Your task to perform on an android device: turn off picture-in-picture Image 0: 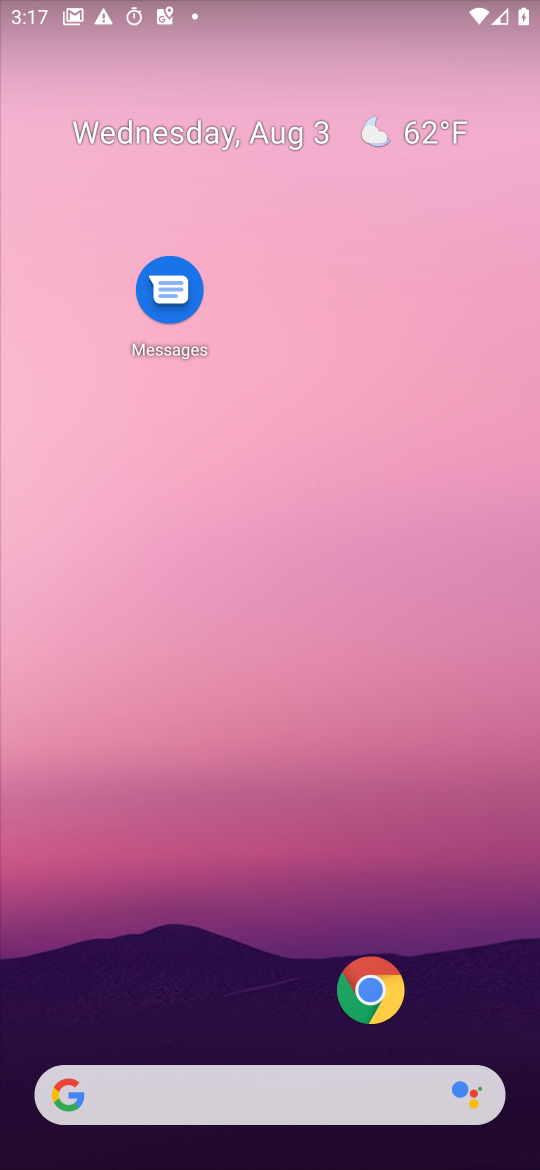
Step 0: click (385, 975)
Your task to perform on an android device: turn off picture-in-picture Image 1: 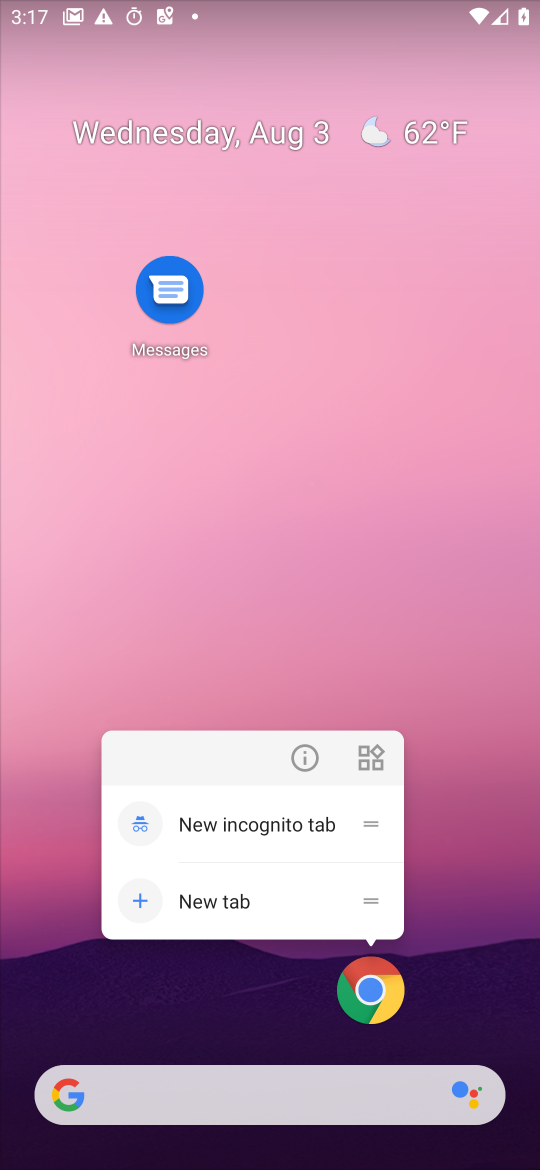
Step 1: click (310, 758)
Your task to perform on an android device: turn off picture-in-picture Image 2: 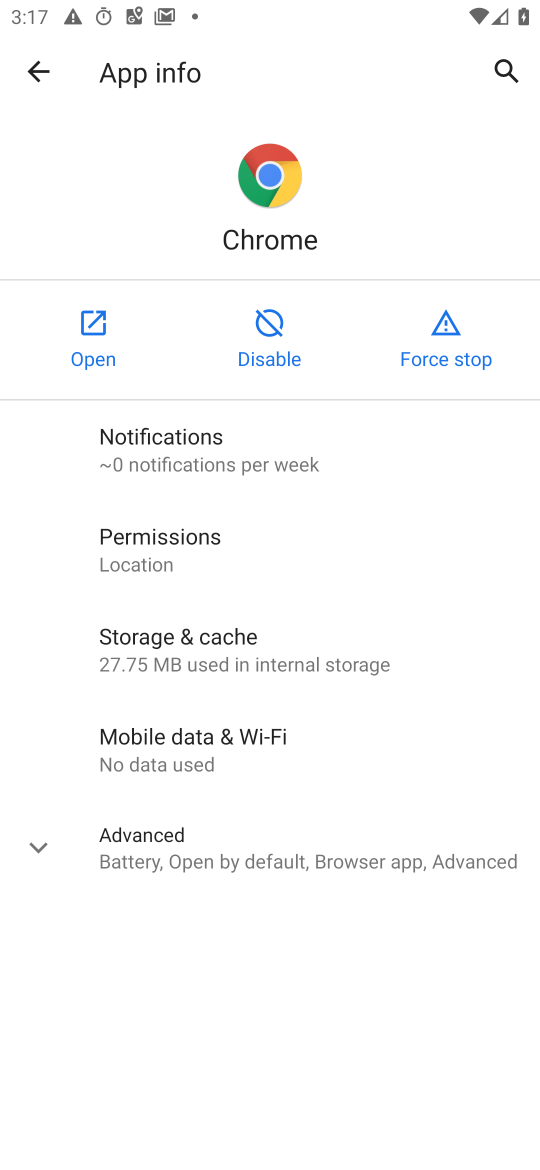
Step 2: click (167, 858)
Your task to perform on an android device: turn off picture-in-picture Image 3: 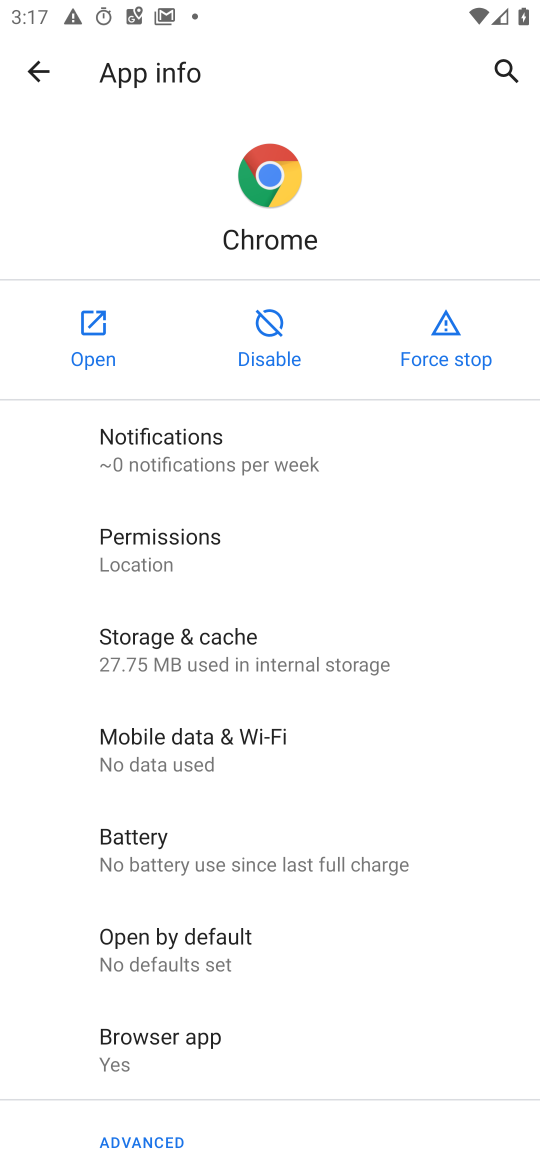
Step 3: drag from (179, 1084) to (213, 448)
Your task to perform on an android device: turn off picture-in-picture Image 4: 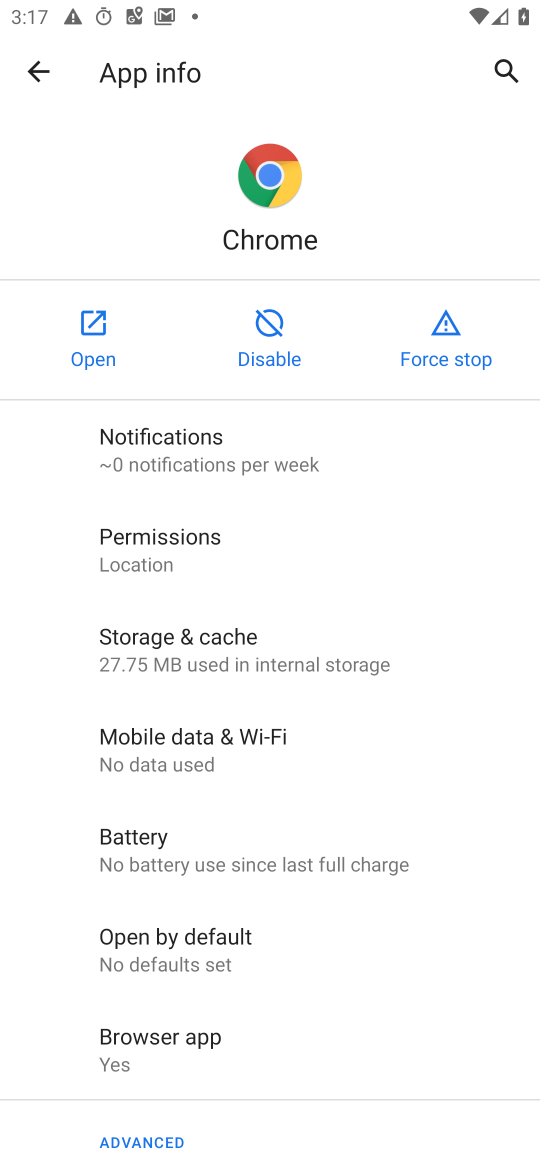
Step 4: drag from (151, 1151) to (133, 582)
Your task to perform on an android device: turn off picture-in-picture Image 5: 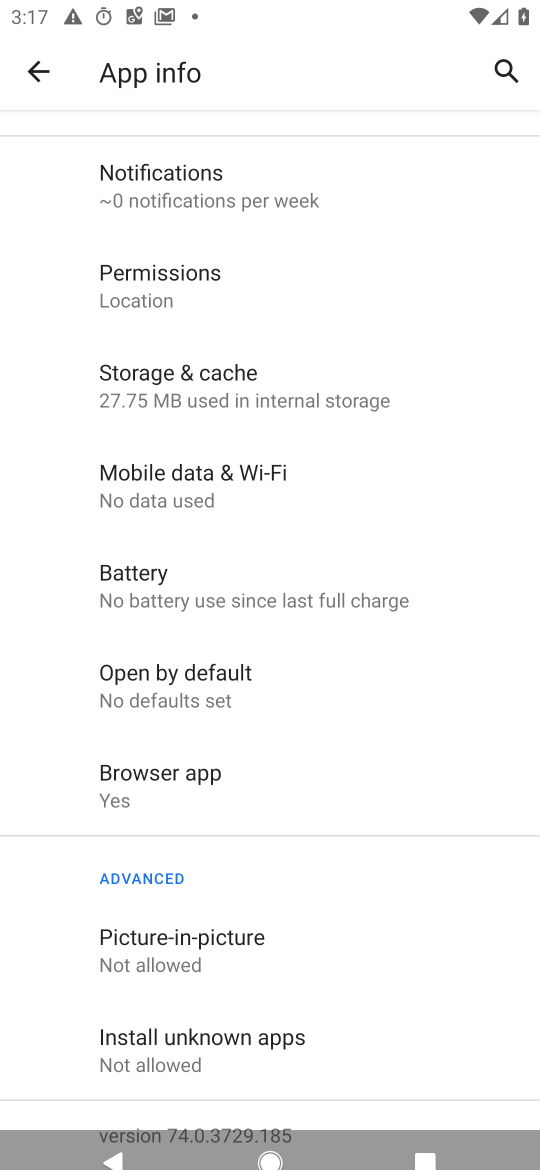
Step 5: click (134, 951)
Your task to perform on an android device: turn off picture-in-picture Image 6: 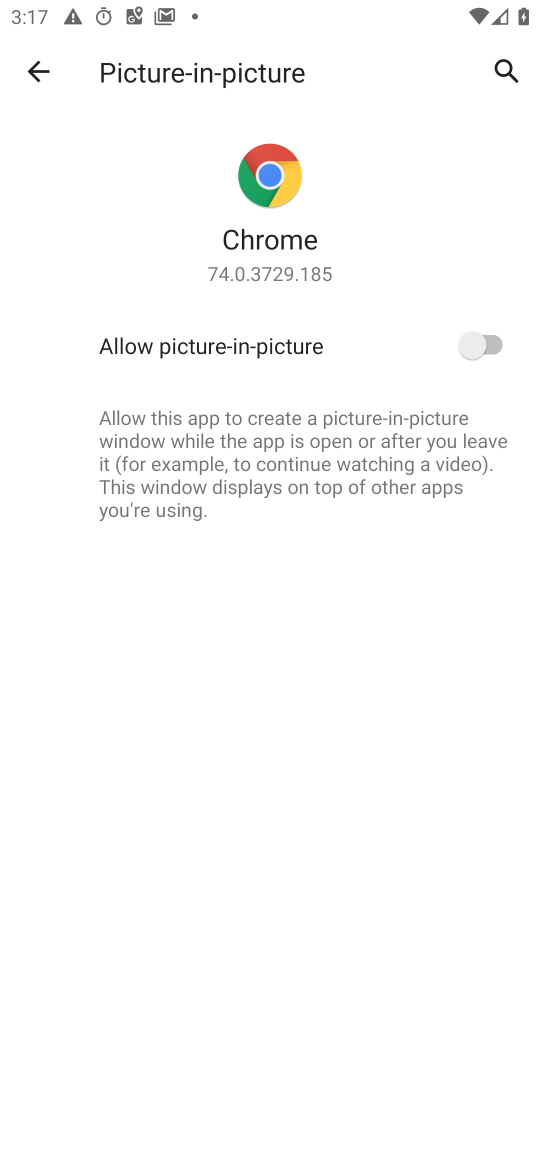
Step 6: task complete